Your task to perform on an android device: Open the stopwatch Image 0: 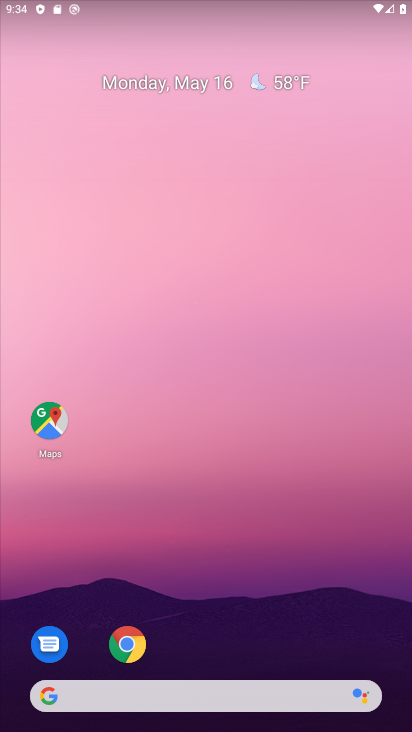
Step 0: drag from (181, 685) to (211, 7)
Your task to perform on an android device: Open the stopwatch Image 1: 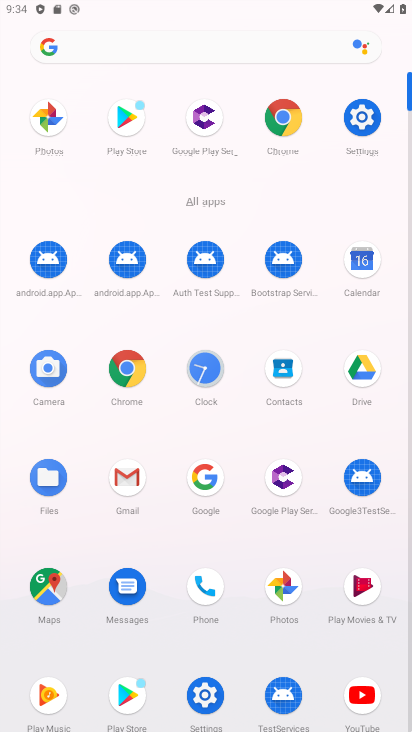
Step 1: click (222, 381)
Your task to perform on an android device: Open the stopwatch Image 2: 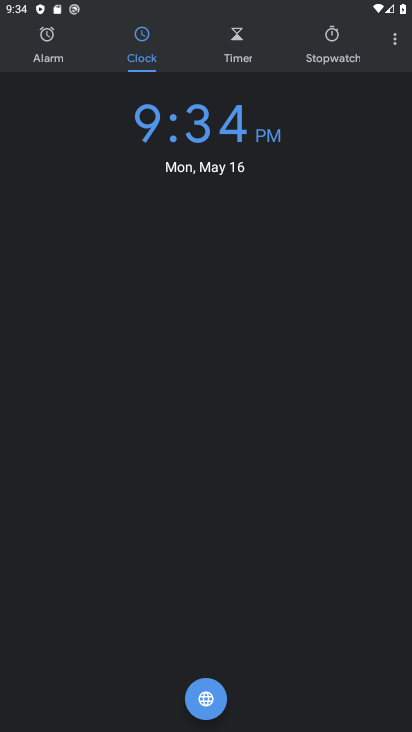
Step 2: click (327, 48)
Your task to perform on an android device: Open the stopwatch Image 3: 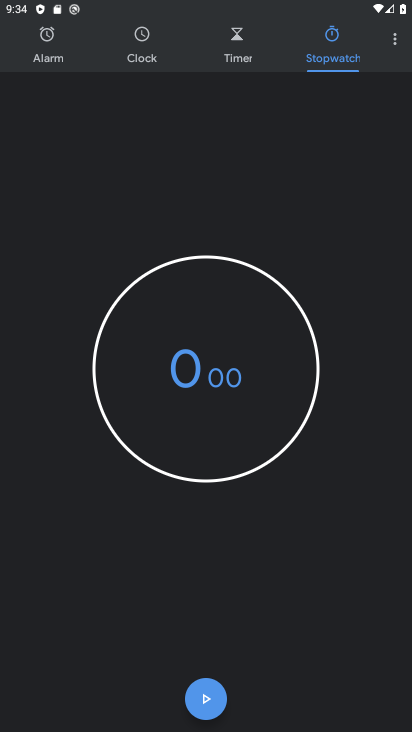
Step 3: task complete